Your task to perform on an android device: Open internet settings Image 0: 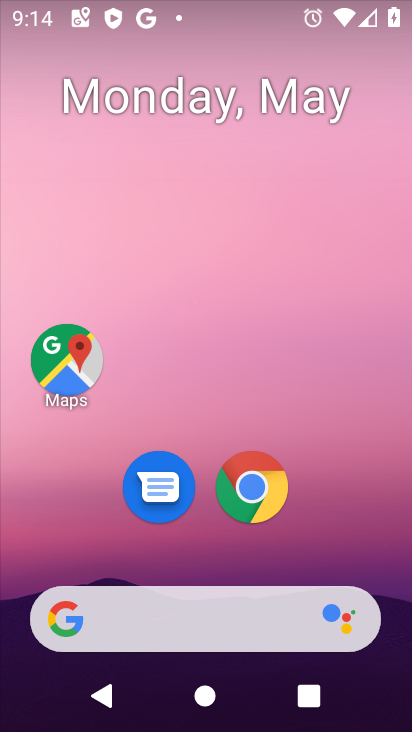
Step 0: drag from (283, 6) to (171, 688)
Your task to perform on an android device: Open internet settings Image 1: 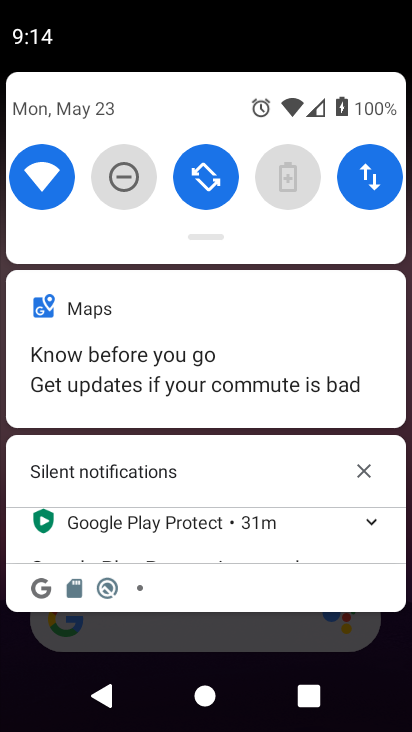
Step 1: click (374, 199)
Your task to perform on an android device: Open internet settings Image 2: 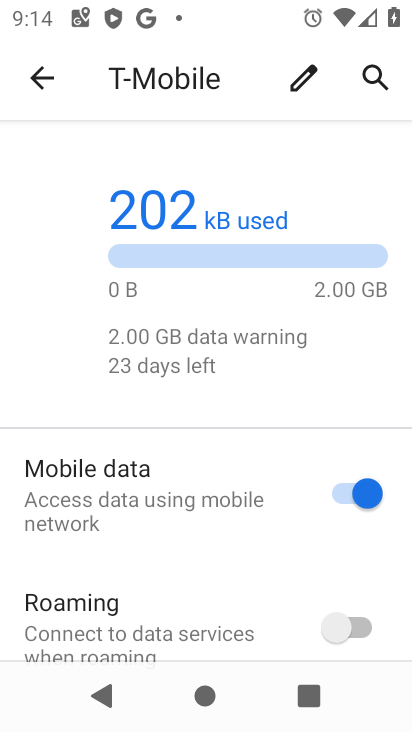
Step 2: task complete